Your task to perform on an android device: Add logitech g502 to the cart on ebay.com, then select checkout. Image 0: 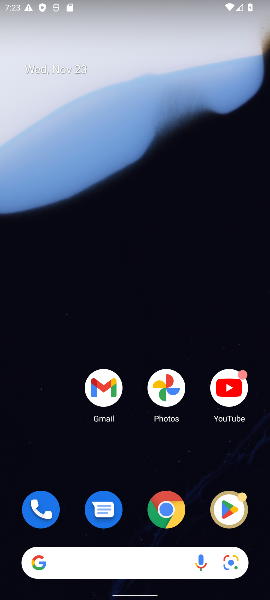
Step 0: click (180, 505)
Your task to perform on an android device: Add logitech g502 to the cart on ebay.com, then select checkout. Image 1: 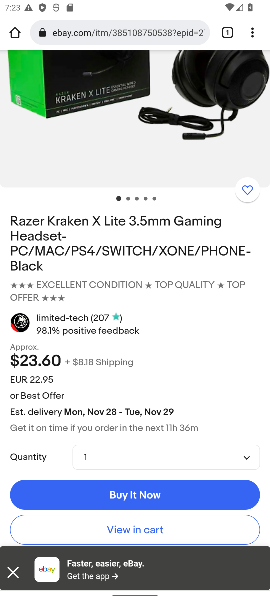
Step 1: click (119, 34)
Your task to perform on an android device: Add logitech g502 to the cart on ebay.com, then select checkout. Image 2: 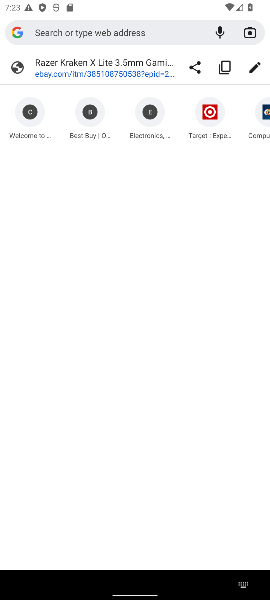
Step 2: type "ebay"
Your task to perform on an android device: Add logitech g502 to the cart on ebay.com, then select checkout. Image 3: 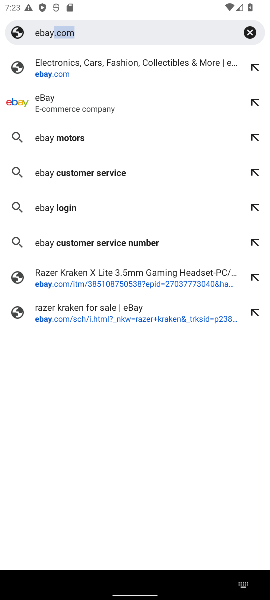
Step 3: click (129, 74)
Your task to perform on an android device: Add logitech g502 to the cart on ebay.com, then select checkout. Image 4: 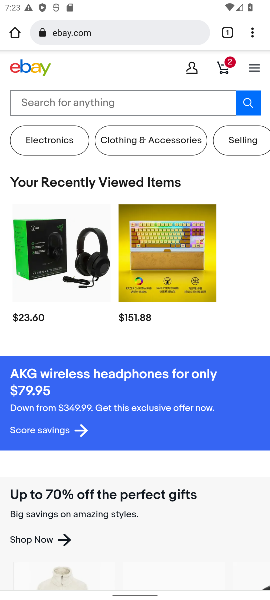
Step 4: click (111, 106)
Your task to perform on an android device: Add logitech g502 to the cart on ebay.com, then select checkout. Image 5: 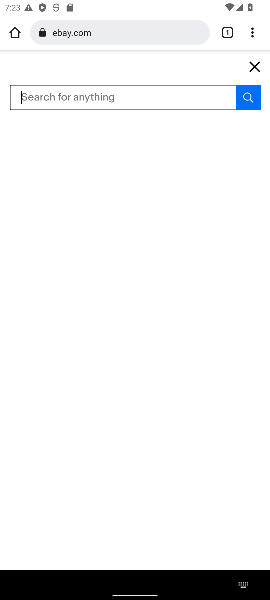
Step 5: type "logitech g502"
Your task to perform on an android device: Add logitech g502 to the cart on ebay.com, then select checkout. Image 6: 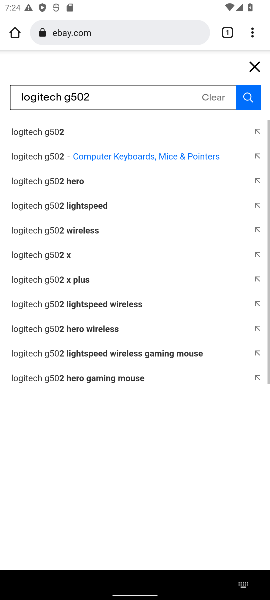
Step 6: click (128, 128)
Your task to perform on an android device: Add logitech g502 to the cart on ebay.com, then select checkout. Image 7: 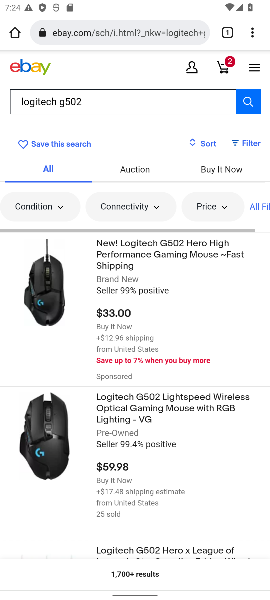
Step 7: click (140, 255)
Your task to perform on an android device: Add logitech g502 to the cart on ebay.com, then select checkout. Image 8: 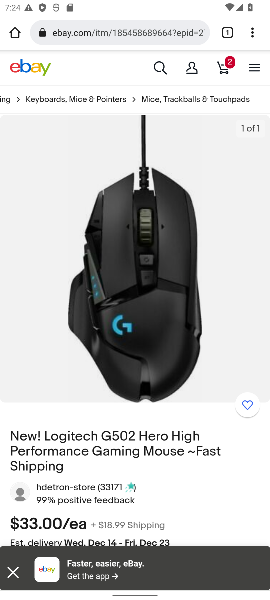
Step 8: drag from (137, 443) to (138, 221)
Your task to perform on an android device: Add logitech g502 to the cart on ebay.com, then select checkout. Image 9: 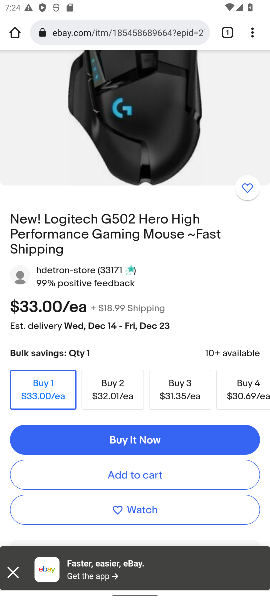
Step 9: click (141, 475)
Your task to perform on an android device: Add logitech g502 to the cart on ebay.com, then select checkout. Image 10: 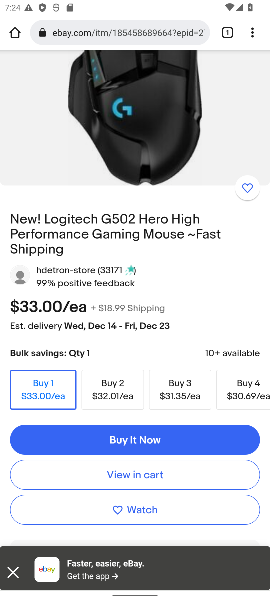
Step 10: click (148, 479)
Your task to perform on an android device: Add logitech g502 to the cart on ebay.com, then select checkout. Image 11: 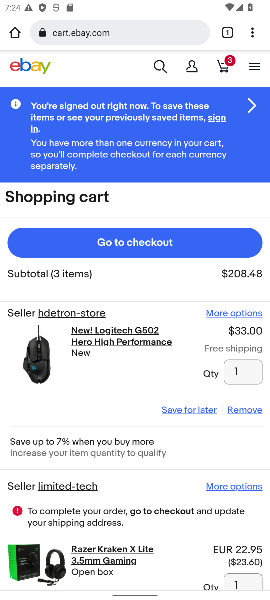
Step 11: click (138, 234)
Your task to perform on an android device: Add logitech g502 to the cart on ebay.com, then select checkout. Image 12: 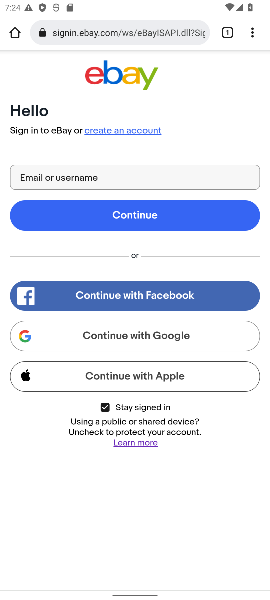
Step 12: task complete